Your task to perform on an android device: uninstall "Roku - Official Remote Control" Image 0: 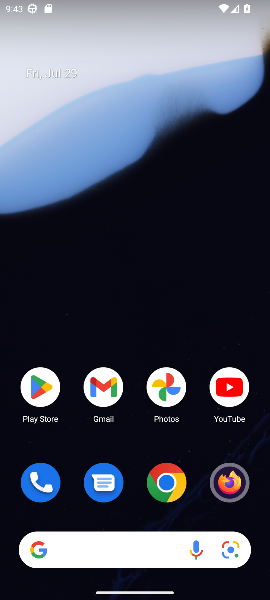
Step 0: click (43, 391)
Your task to perform on an android device: uninstall "Roku - Official Remote Control" Image 1: 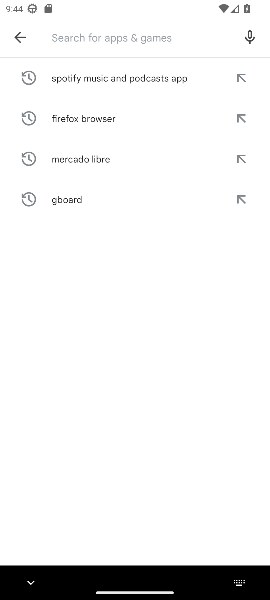
Step 1: type "Roku - Official Remote Control"
Your task to perform on an android device: uninstall "Roku - Official Remote Control" Image 2: 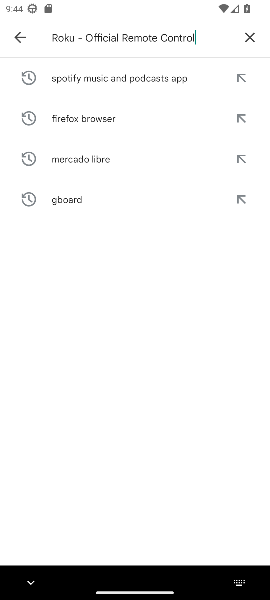
Step 2: type ""
Your task to perform on an android device: uninstall "Roku - Official Remote Control" Image 3: 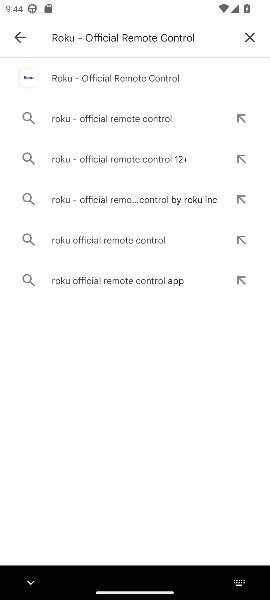
Step 3: click (146, 77)
Your task to perform on an android device: uninstall "Roku - Official Remote Control" Image 4: 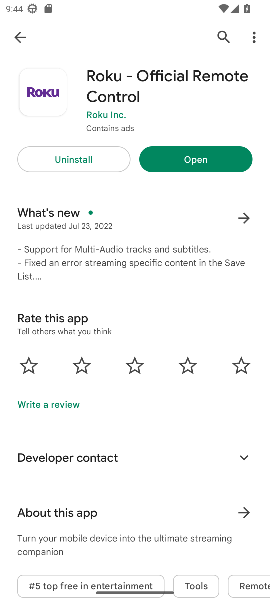
Step 4: click (99, 158)
Your task to perform on an android device: uninstall "Roku - Official Remote Control" Image 5: 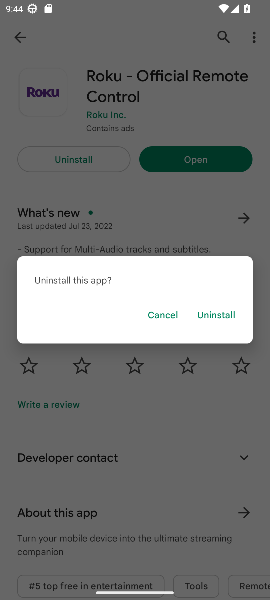
Step 5: click (219, 312)
Your task to perform on an android device: uninstall "Roku - Official Remote Control" Image 6: 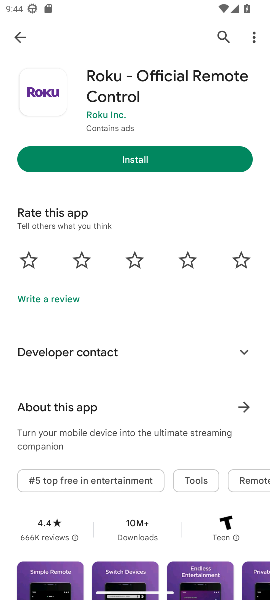
Step 6: task complete